Your task to perform on an android device: What's the weather going to be this weekend? Image 0: 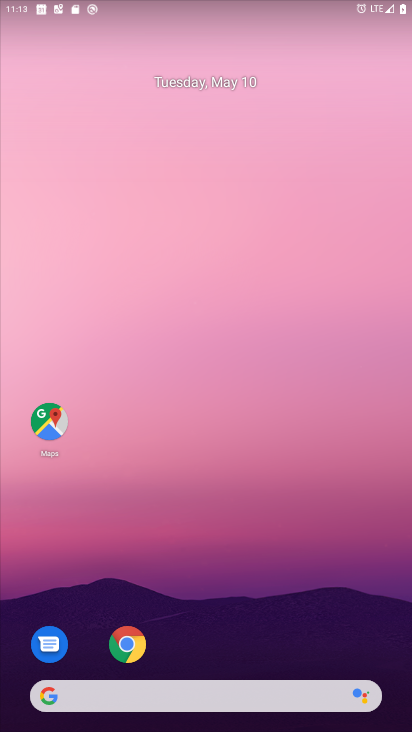
Step 0: drag from (250, 538) to (215, 7)
Your task to perform on an android device: What's the weather going to be this weekend? Image 1: 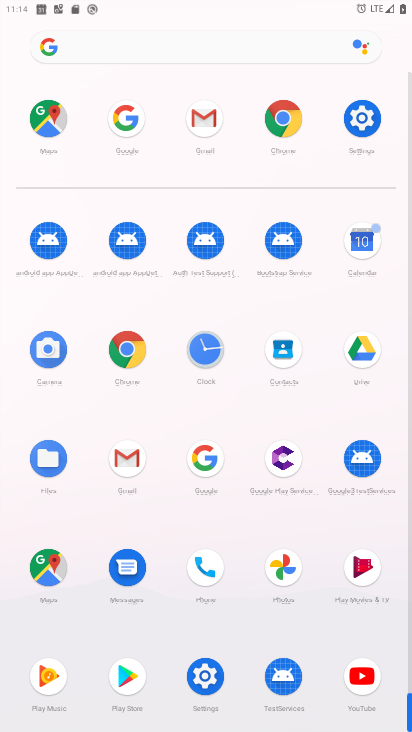
Step 1: click (207, 484)
Your task to perform on an android device: What's the weather going to be this weekend? Image 2: 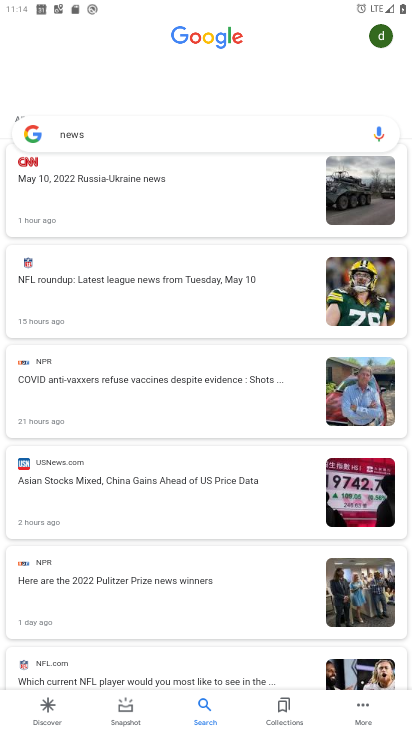
Step 2: click (257, 125)
Your task to perform on an android device: What's the weather going to be this weekend? Image 3: 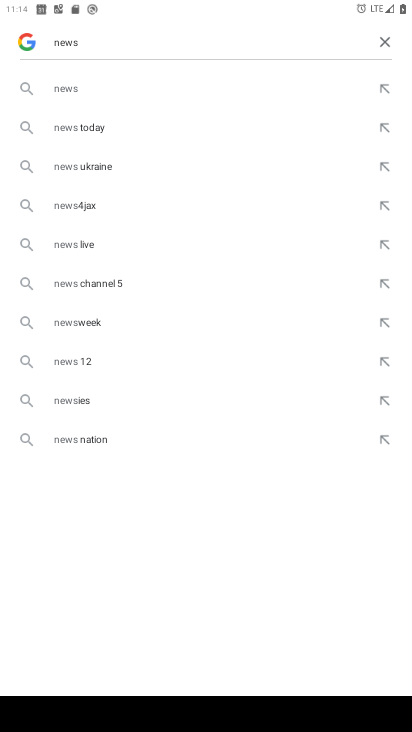
Step 3: click (388, 43)
Your task to perform on an android device: What's the weather going to be this weekend? Image 4: 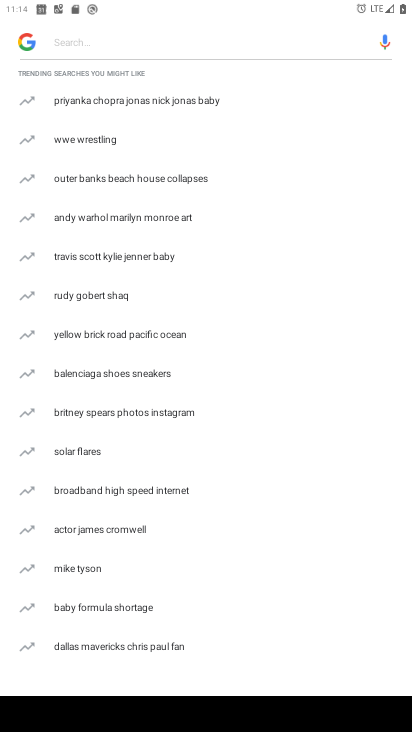
Step 4: type "weather"
Your task to perform on an android device: What's the weather going to be this weekend? Image 5: 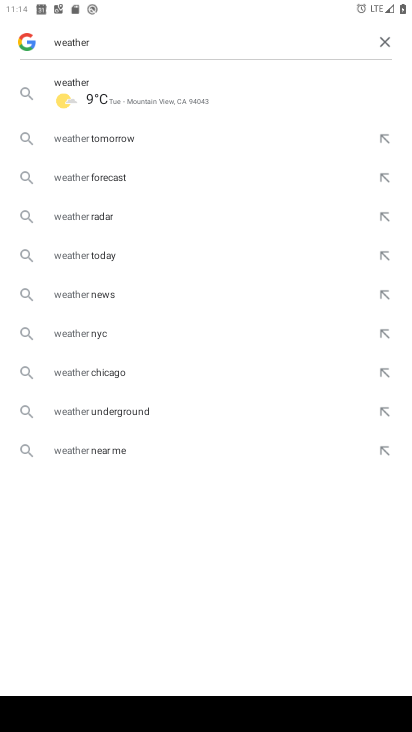
Step 5: click (190, 92)
Your task to perform on an android device: What's the weather going to be this weekend? Image 6: 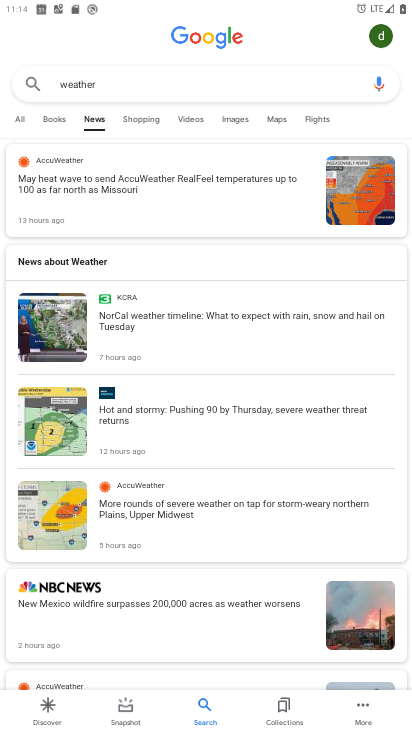
Step 6: task complete